Your task to perform on an android device: Go to Wikipedia Image 0: 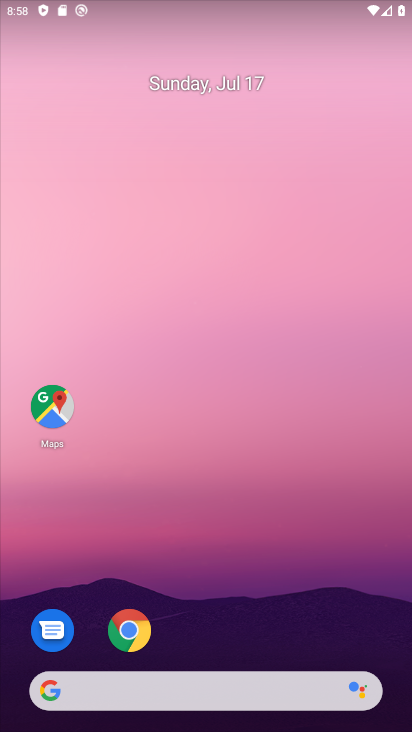
Step 0: click (135, 630)
Your task to perform on an android device: Go to Wikipedia Image 1: 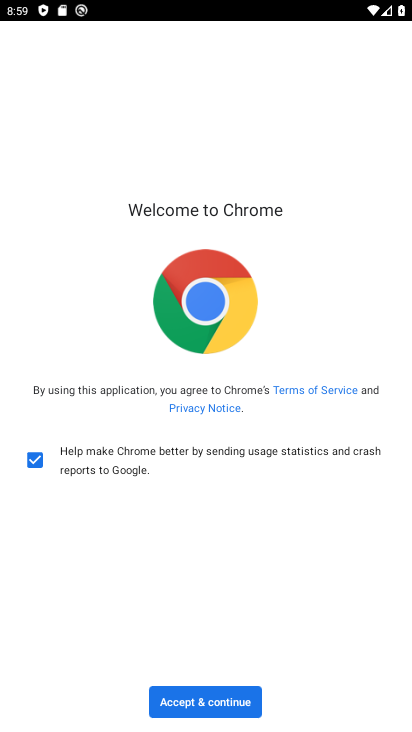
Step 1: click (211, 692)
Your task to perform on an android device: Go to Wikipedia Image 2: 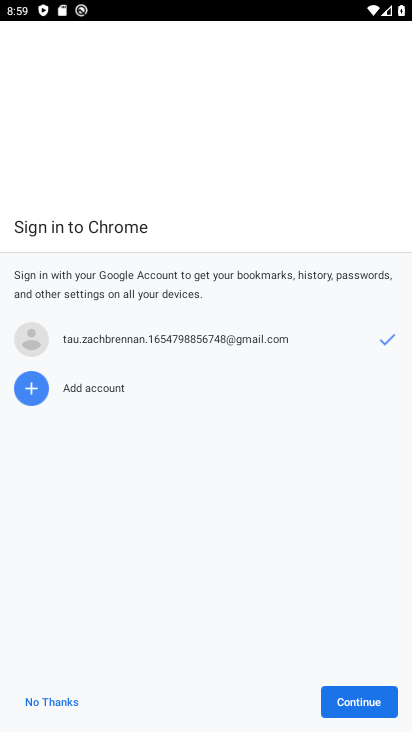
Step 2: click (372, 704)
Your task to perform on an android device: Go to Wikipedia Image 3: 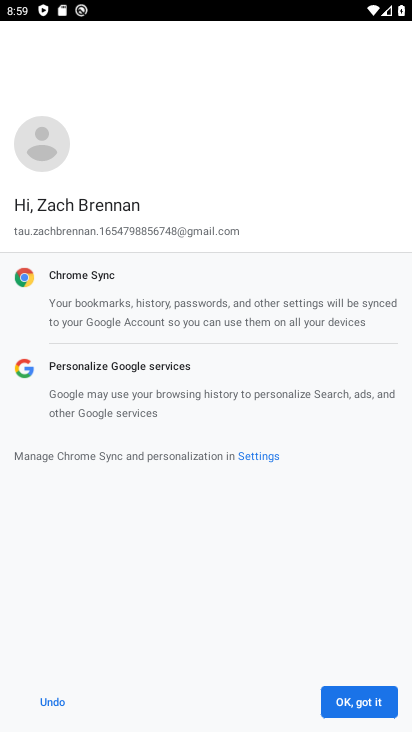
Step 3: click (357, 701)
Your task to perform on an android device: Go to Wikipedia Image 4: 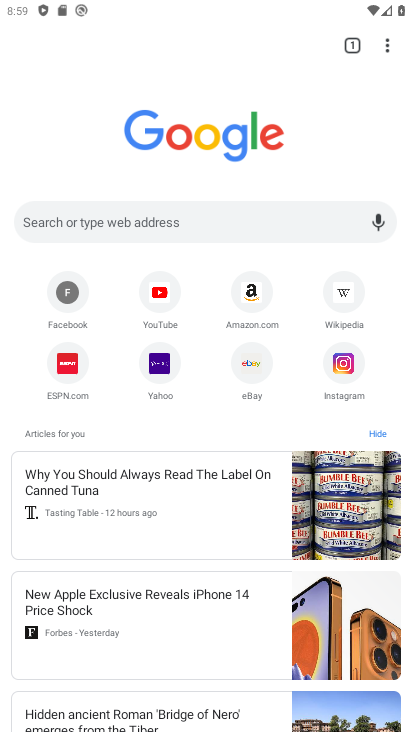
Step 4: click (344, 290)
Your task to perform on an android device: Go to Wikipedia Image 5: 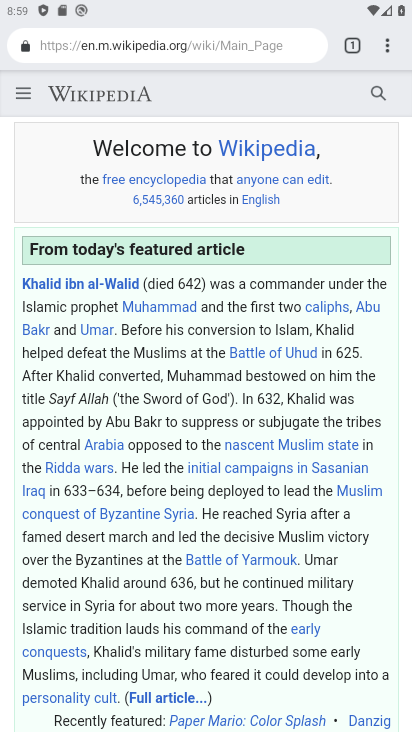
Step 5: task complete